Your task to perform on an android device: Search for seafood restaurants on Google Maps Image 0: 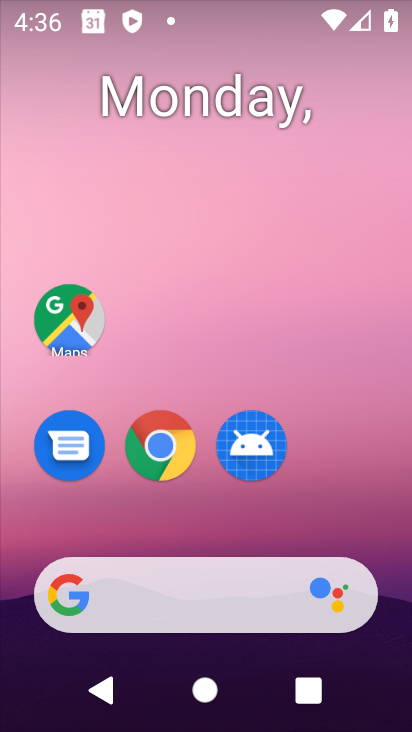
Step 0: click (72, 320)
Your task to perform on an android device: Search for seafood restaurants on Google Maps Image 1: 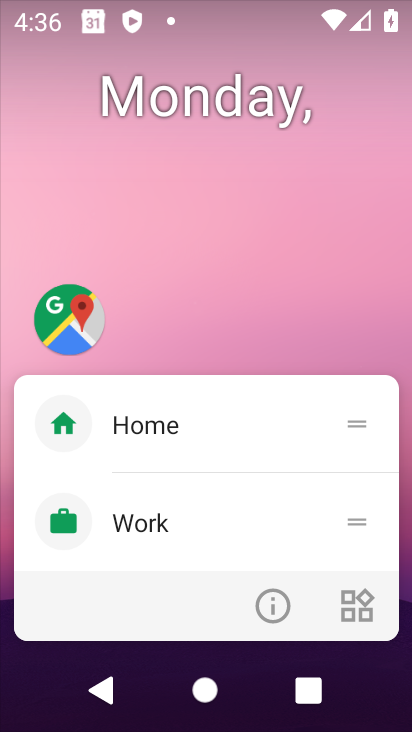
Step 1: click (75, 319)
Your task to perform on an android device: Search for seafood restaurants on Google Maps Image 2: 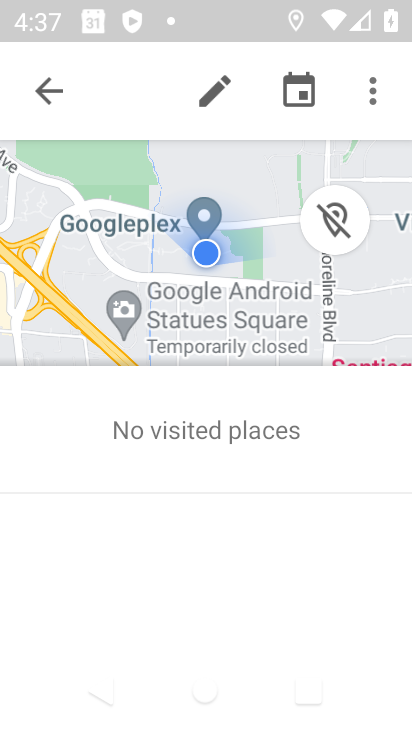
Step 2: click (368, 84)
Your task to perform on an android device: Search for seafood restaurants on Google Maps Image 3: 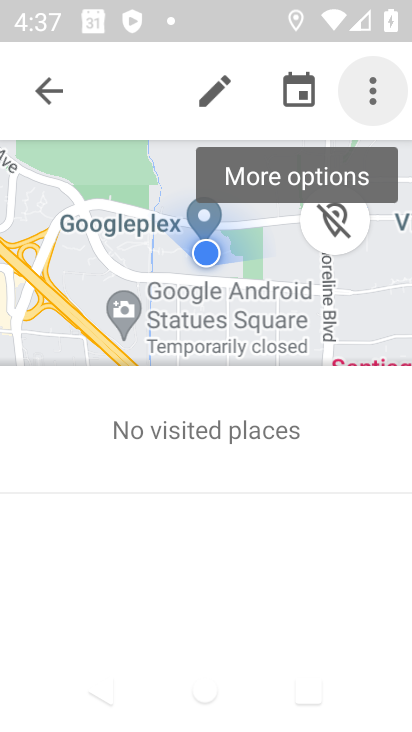
Step 3: click (368, 89)
Your task to perform on an android device: Search for seafood restaurants on Google Maps Image 4: 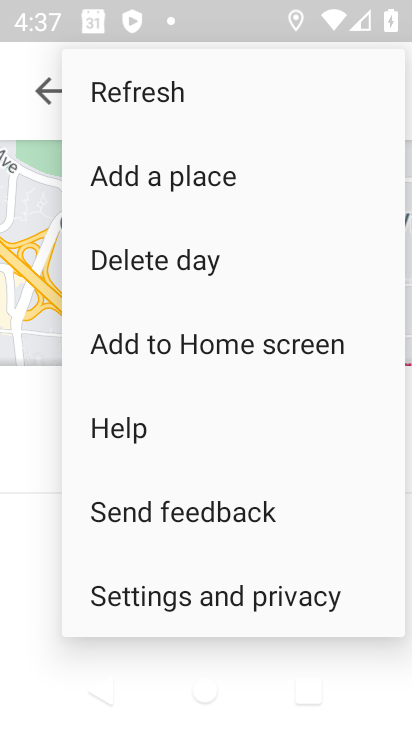
Step 4: click (221, 598)
Your task to perform on an android device: Search for seafood restaurants on Google Maps Image 5: 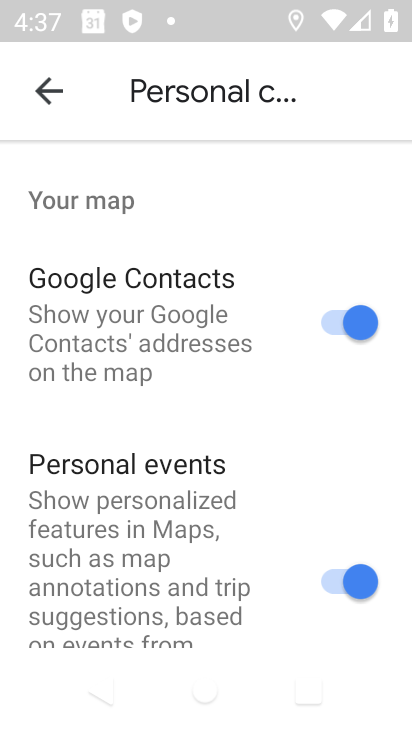
Step 5: click (45, 89)
Your task to perform on an android device: Search for seafood restaurants on Google Maps Image 6: 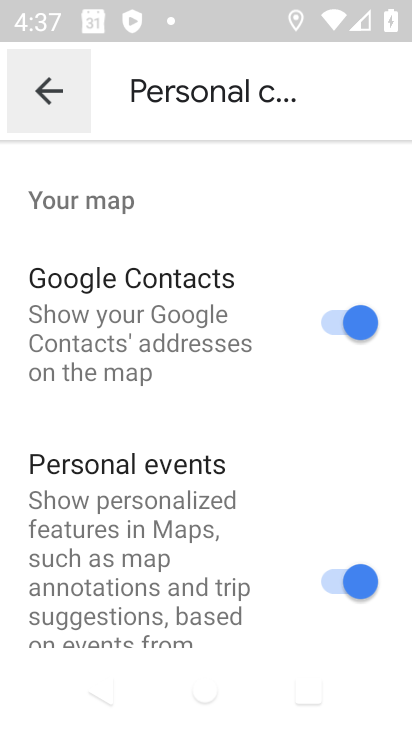
Step 6: click (45, 89)
Your task to perform on an android device: Search for seafood restaurants on Google Maps Image 7: 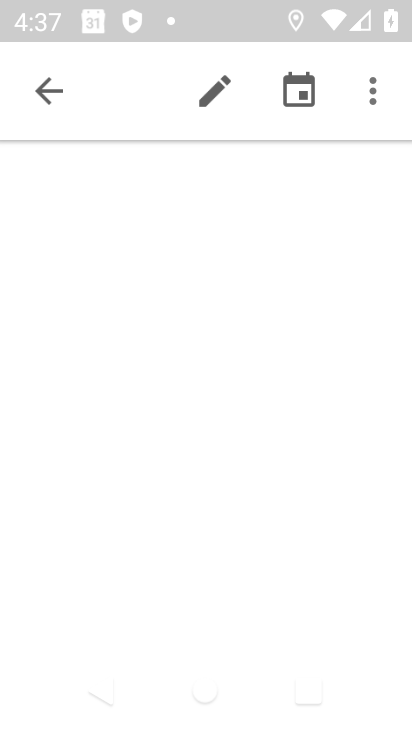
Step 7: click (45, 89)
Your task to perform on an android device: Search for seafood restaurants on Google Maps Image 8: 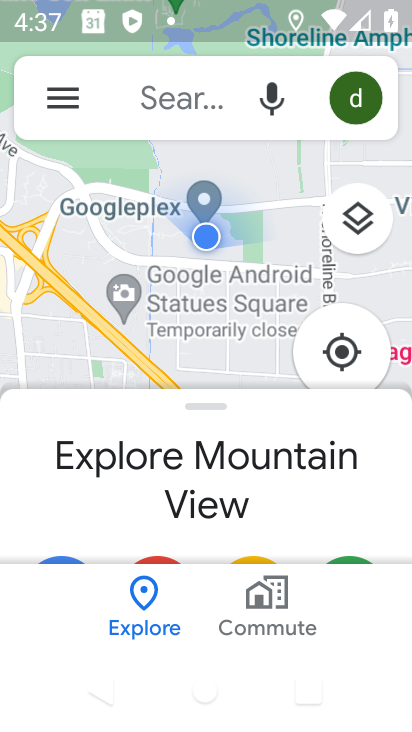
Step 8: click (195, 95)
Your task to perform on an android device: Search for seafood restaurants on Google Maps Image 9: 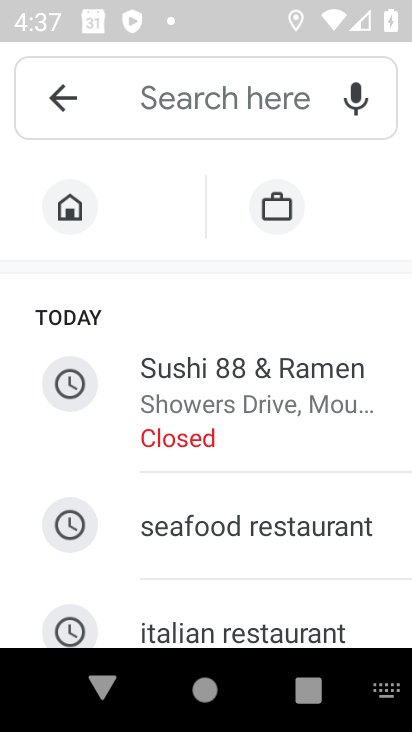
Step 9: click (180, 104)
Your task to perform on an android device: Search for seafood restaurants on Google Maps Image 10: 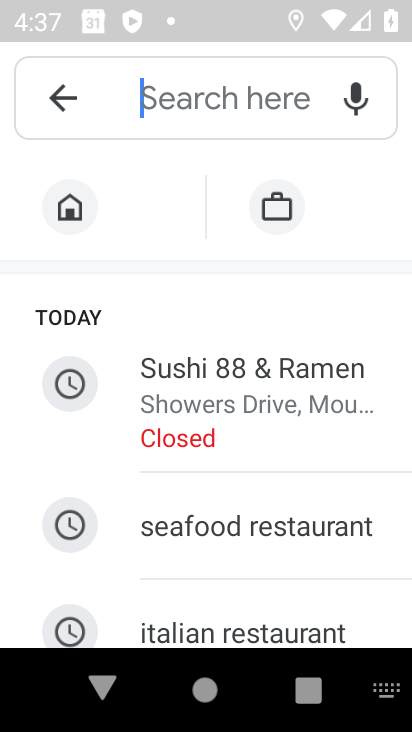
Step 10: type "seafood restaurants "
Your task to perform on an android device: Search for seafood restaurants on Google Maps Image 11: 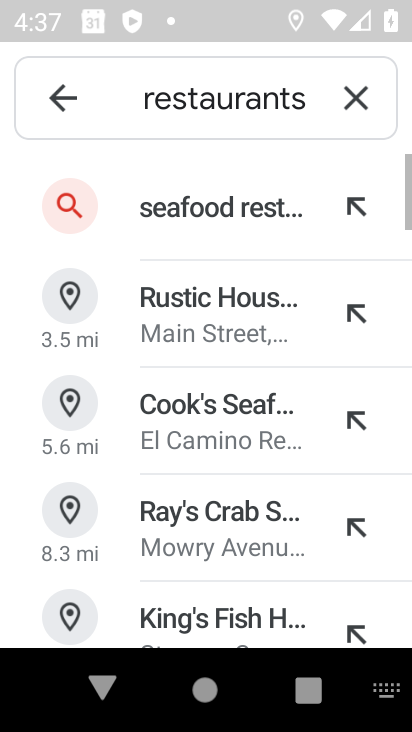
Step 11: click (228, 203)
Your task to perform on an android device: Search for seafood restaurants on Google Maps Image 12: 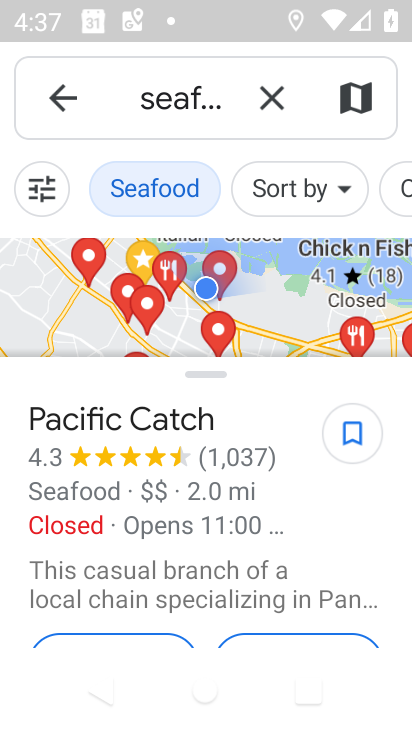
Step 12: task complete